Your task to perform on an android device: install app "McDonald's" Image 0: 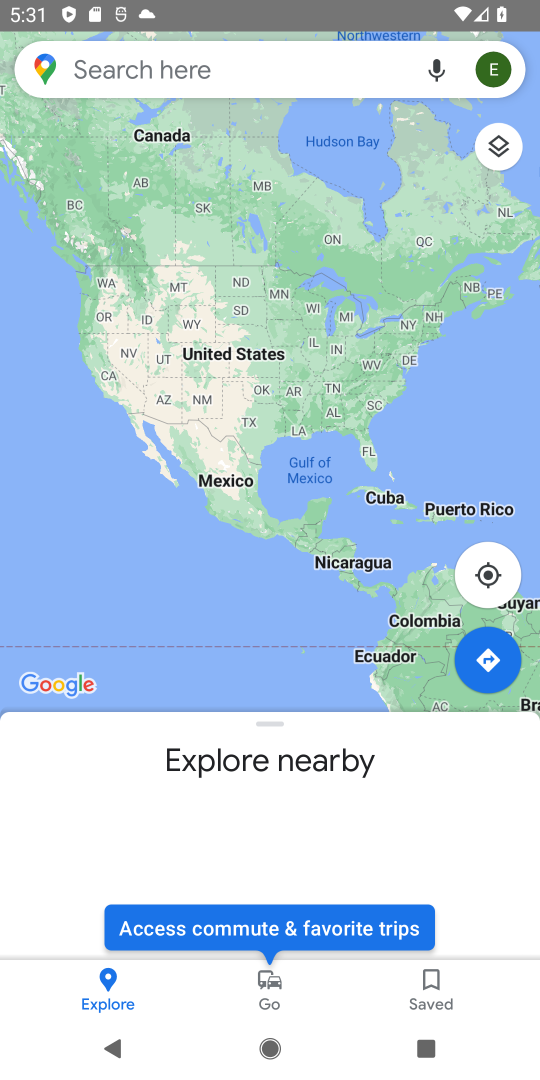
Step 0: press home button
Your task to perform on an android device: install app "McDonald's" Image 1: 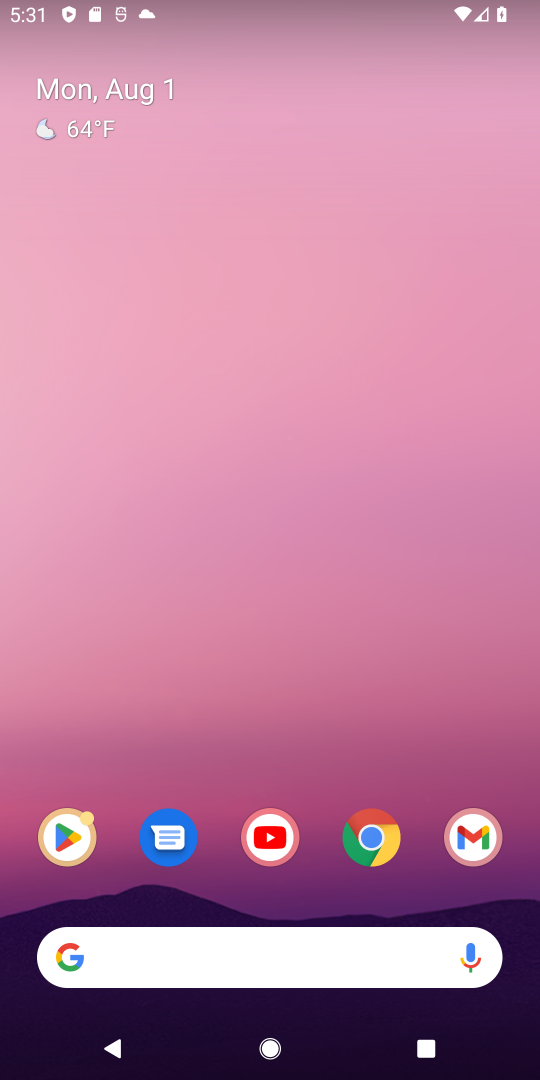
Step 1: click (43, 853)
Your task to perform on an android device: install app "McDonald's" Image 2: 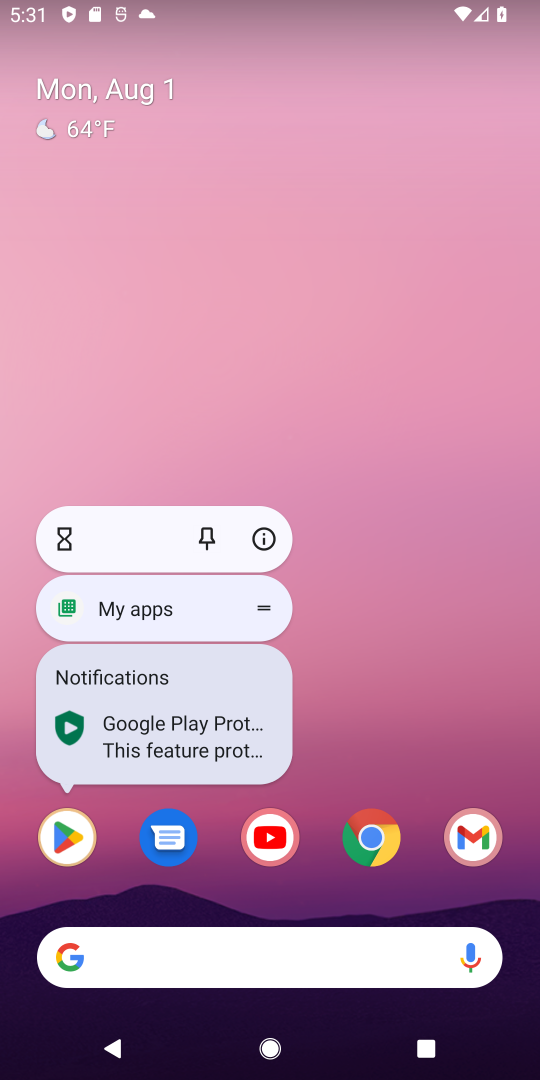
Step 2: click (55, 846)
Your task to perform on an android device: install app "McDonald's" Image 3: 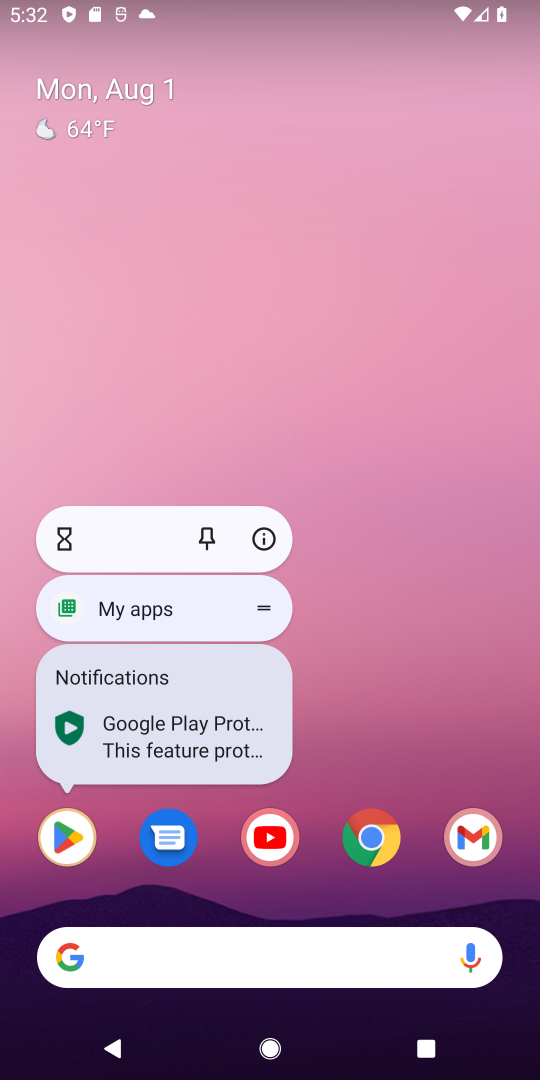
Step 3: click (70, 834)
Your task to perform on an android device: install app "McDonald's" Image 4: 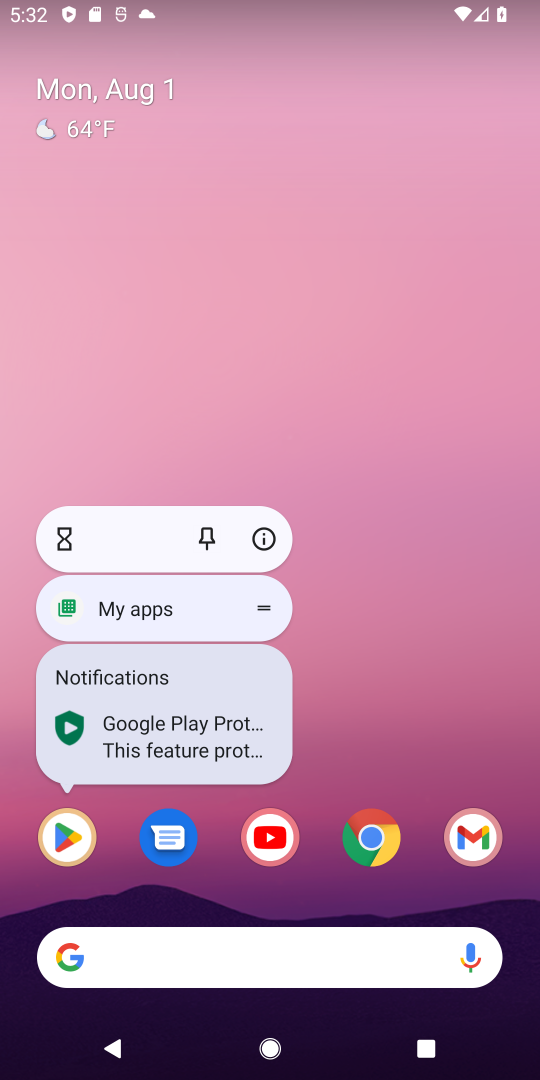
Step 4: click (70, 834)
Your task to perform on an android device: install app "McDonald's" Image 5: 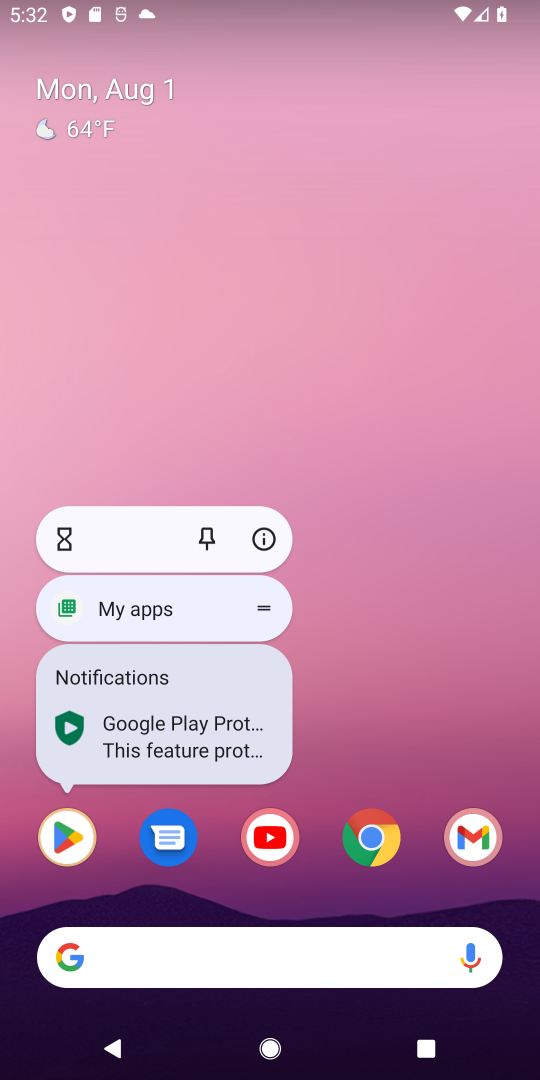
Step 5: click (55, 834)
Your task to perform on an android device: install app "McDonald's" Image 6: 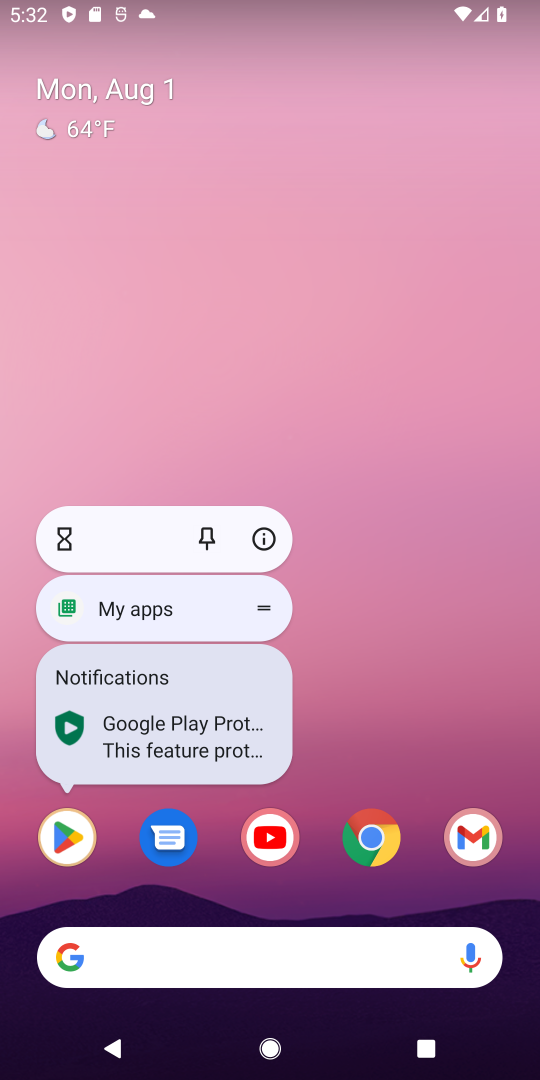
Step 6: click (55, 834)
Your task to perform on an android device: install app "McDonald's" Image 7: 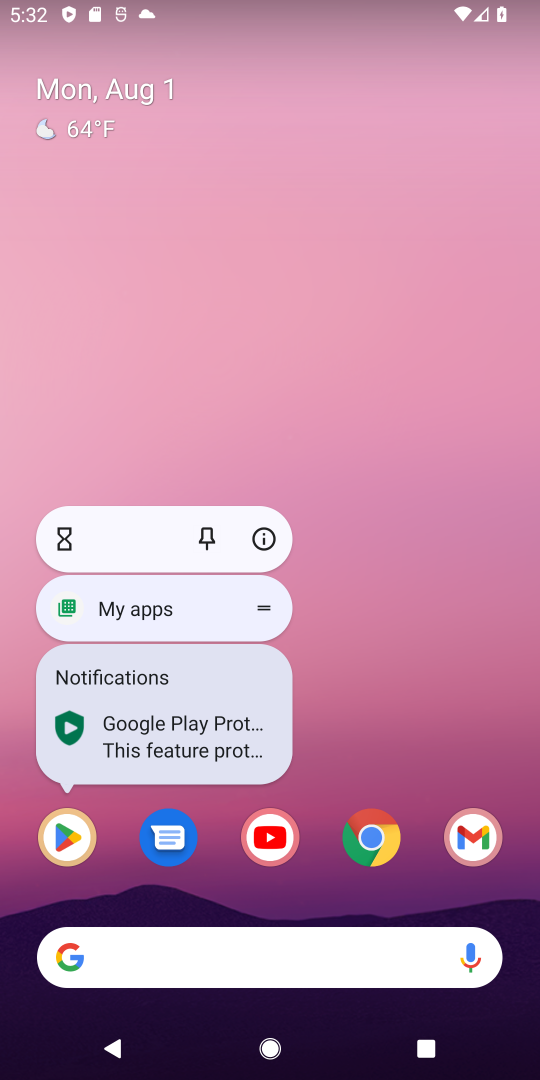
Step 7: click (74, 836)
Your task to perform on an android device: install app "McDonald's" Image 8: 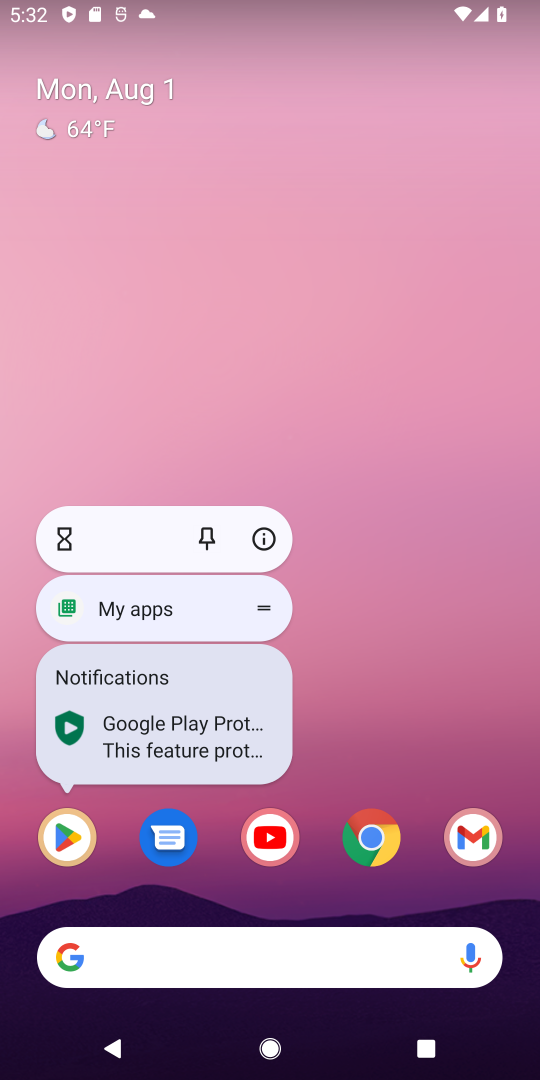
Step 8: click (74, 836)
Your task to perform on an android device: install app "McDonald's" Image 9: 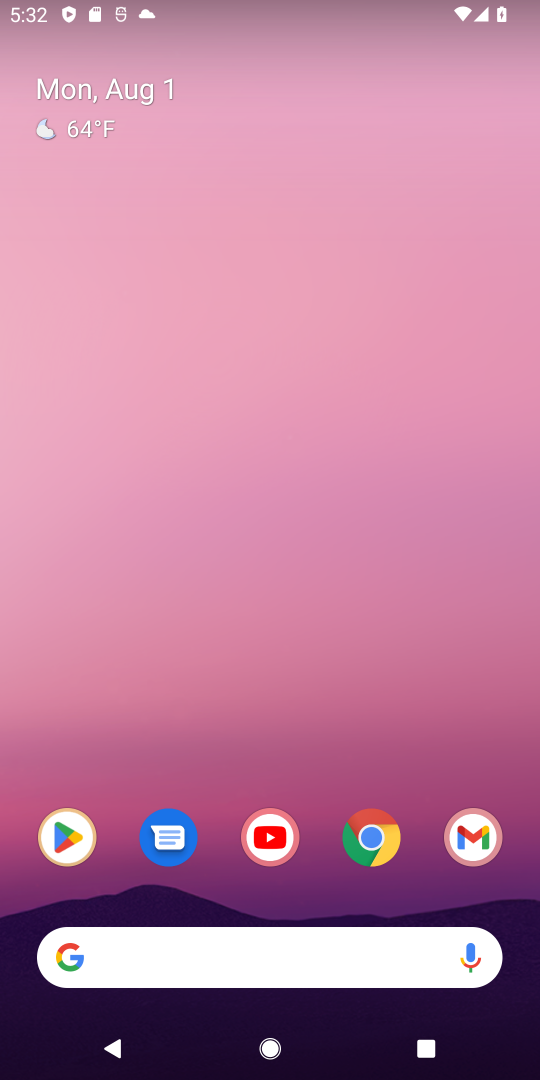
Step 9: click (74, 836)
Your task to perform on an android device: install app "McDonald's" Image 10: 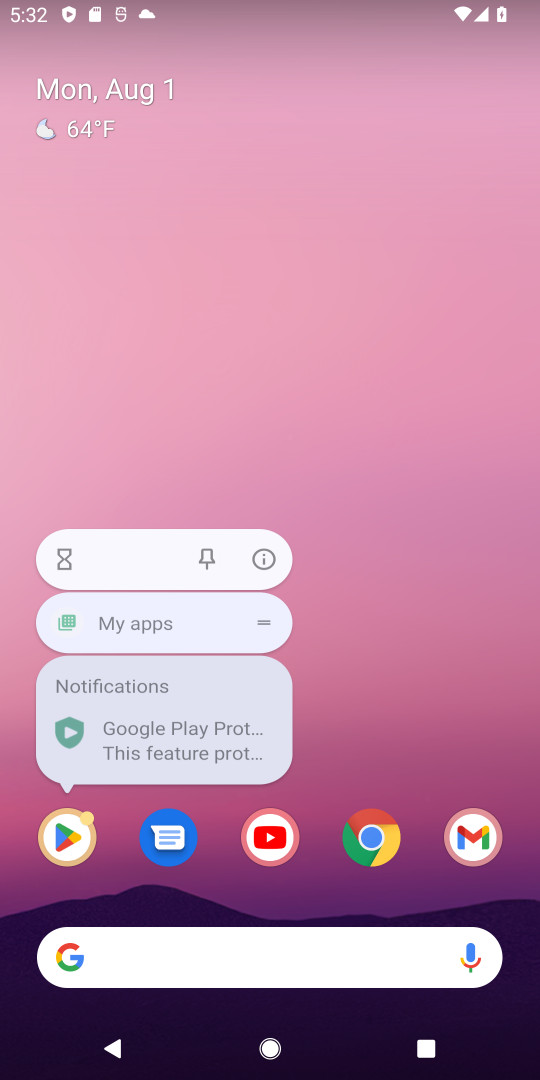
Step 10: click (74, 836)
Your task to perform on an android device: install app "McDonald's" Image 11: 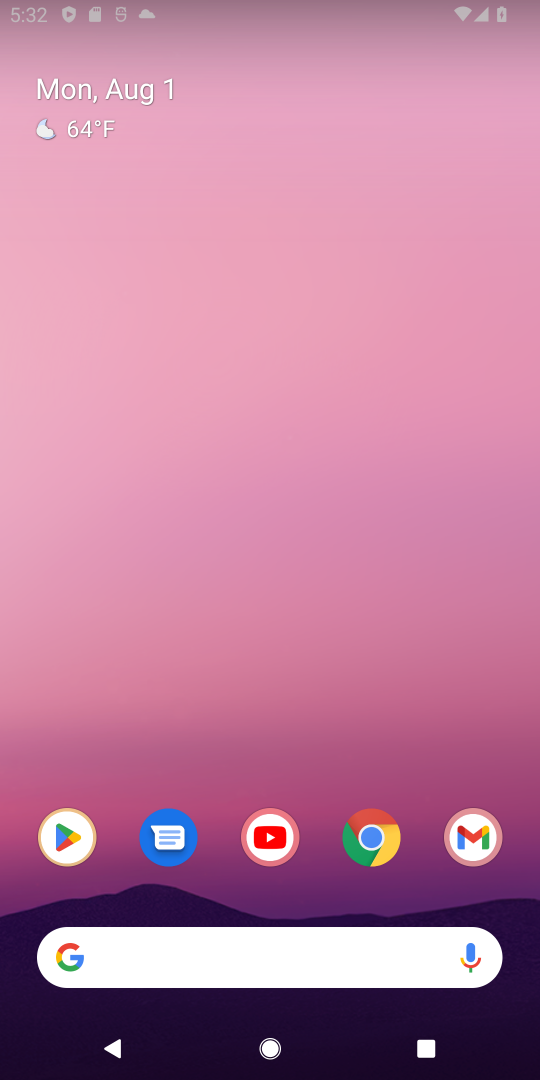
Step 11: click (74, 836)
Your task to perform on an android device: install app "McDonald's" Image 12: 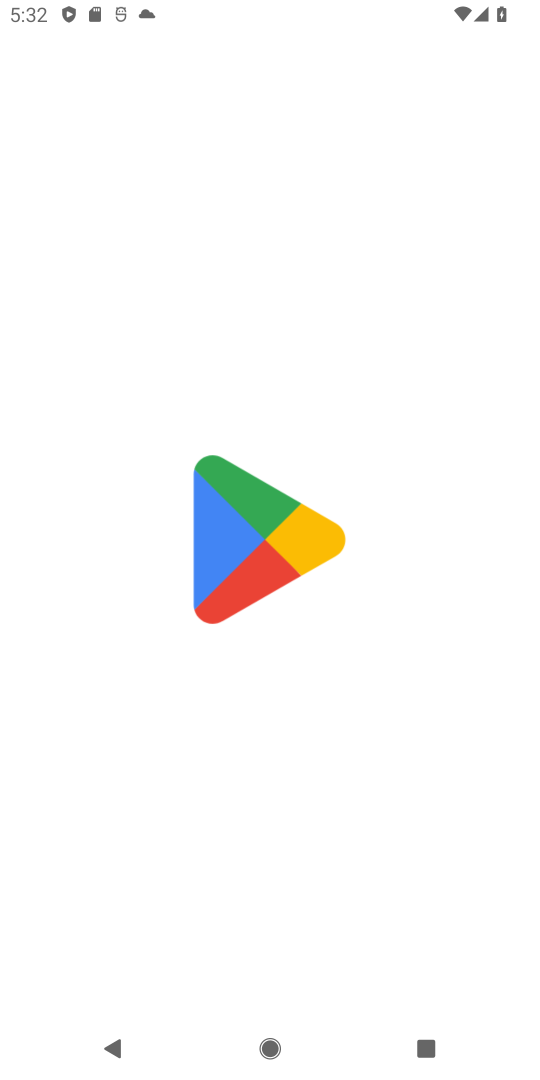
Step 12: click (74, 836)
Your task to perform on an android device: install app "McDonald's" Image 13: 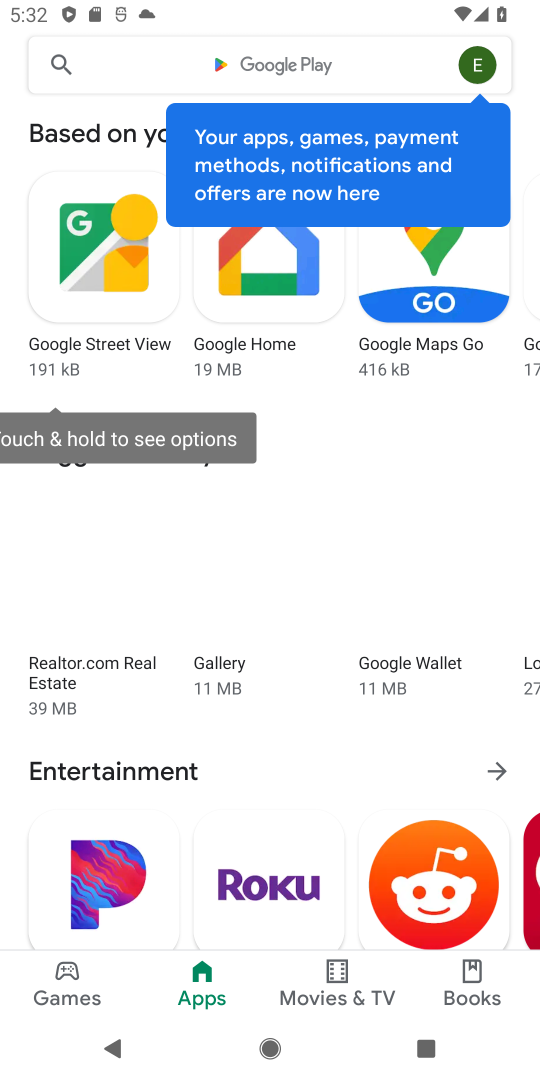
Step 13: click (320, 70)
Your task to perform on an android device: install app "McDonald's" Image 14: 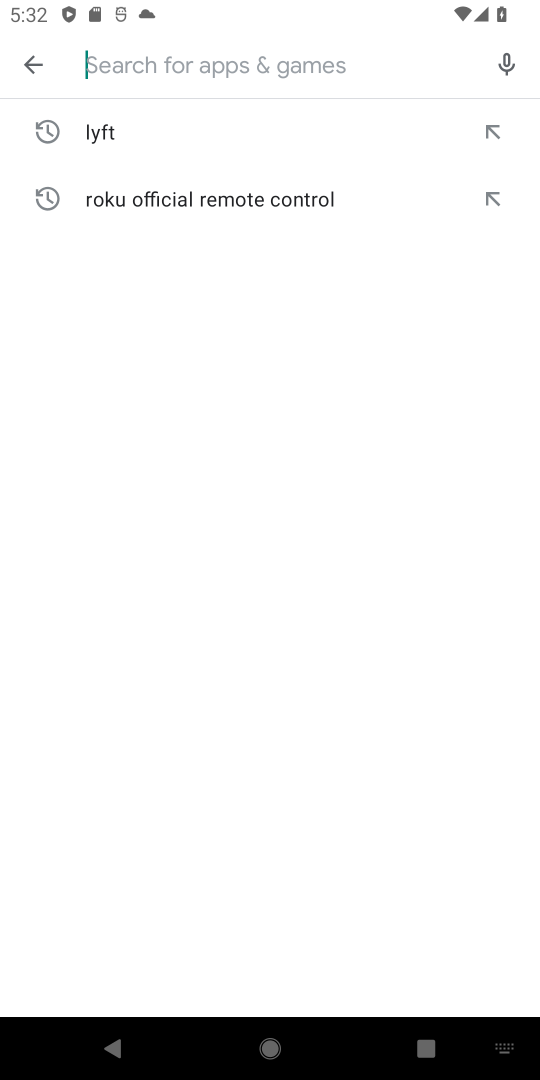
Step 14: type "McDonald's""
Your task to perform on an android device: install app "McDonald's" Image 15: 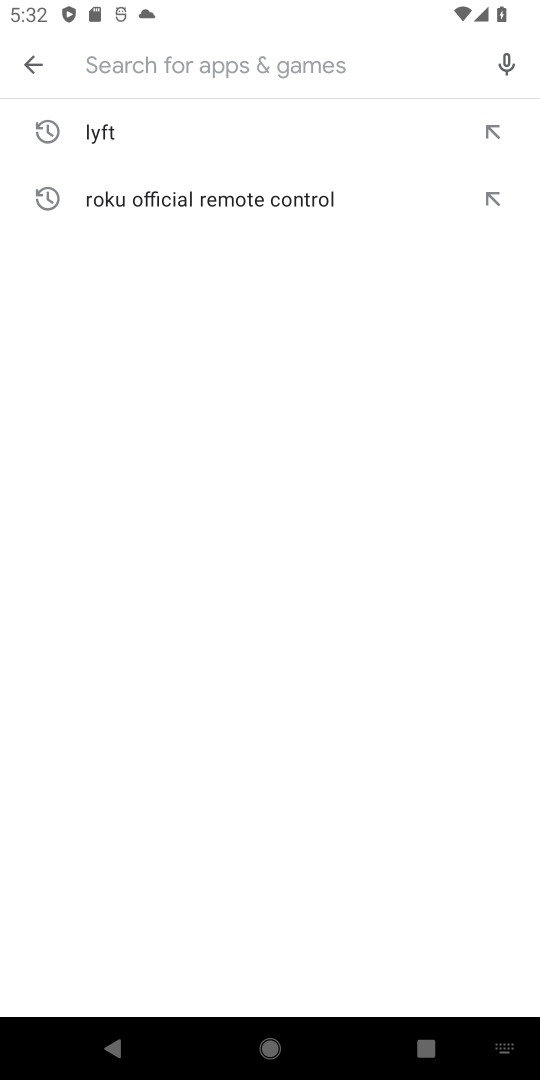
Step 15: type ""
Your task to perform on an android device: install app "McDonald's" Image 16: 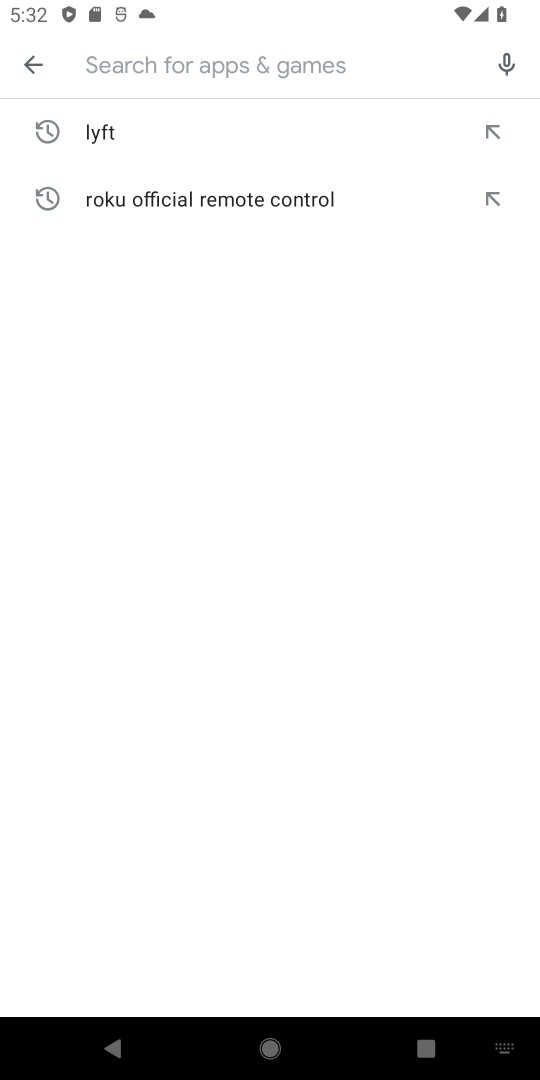
Step 16: type "McDonald's""
Your task to perform on an android device: install app "McDonald's" Image 17: 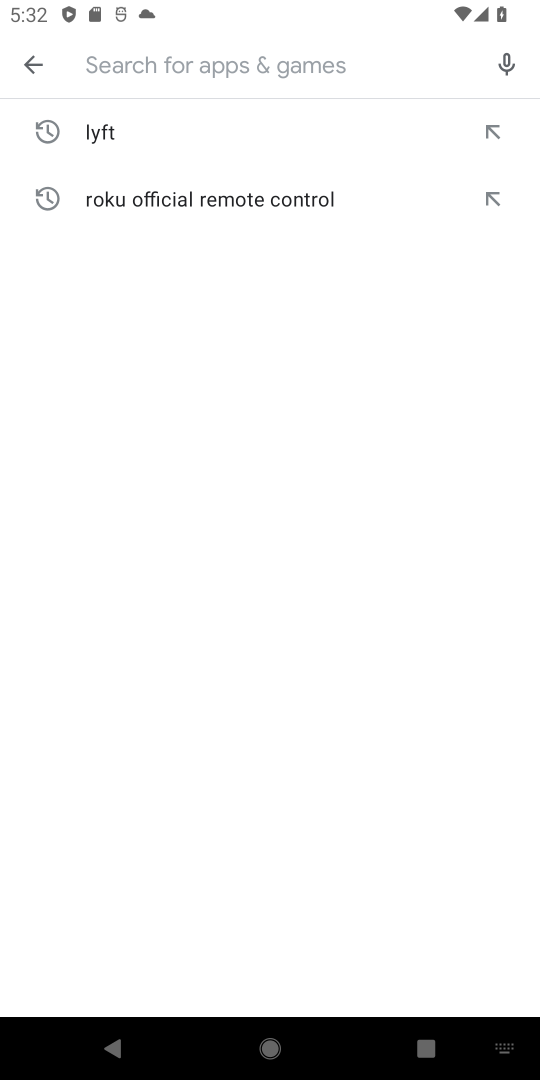
Step 17: press enter
Your task to perform on an android device: install app "McDonald's" Image 18: 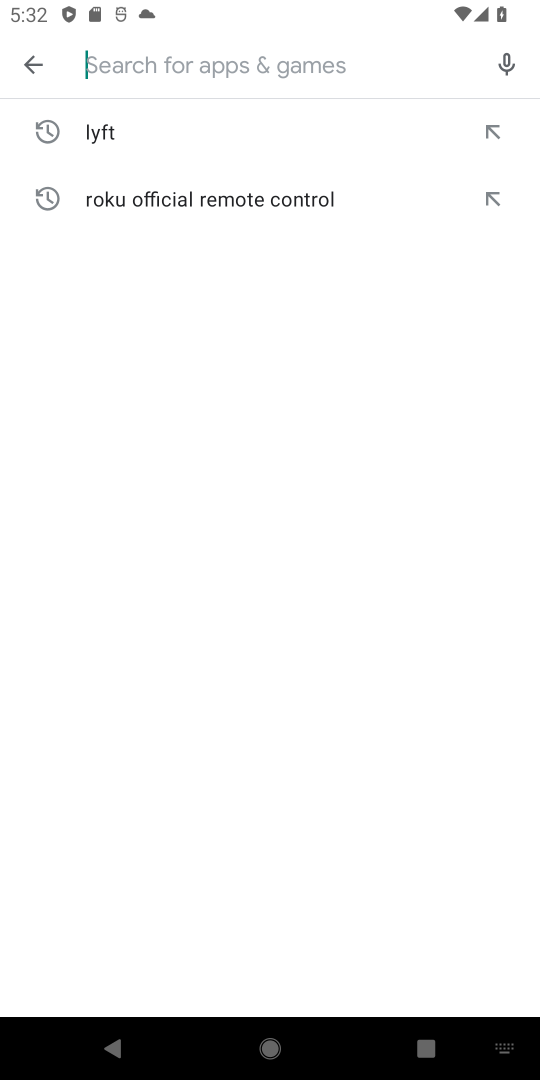
Step 18: type "McDonald's""
Your task to perform on an android device: install app "McDonald's" Image 19: 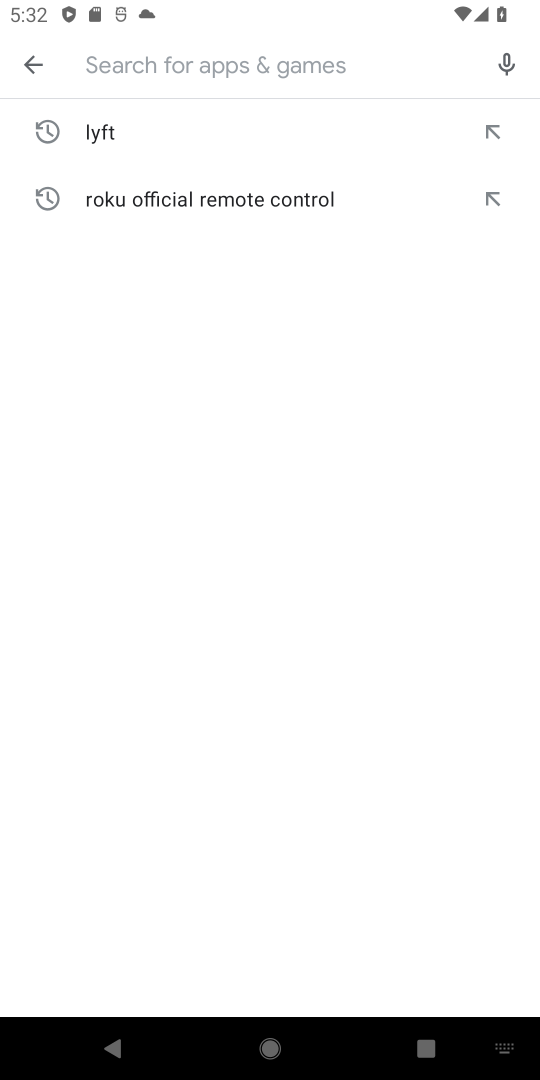
Step 19: type "mcdonald"
Your task to perform on an android device: install app "McDonald's" Image 20: 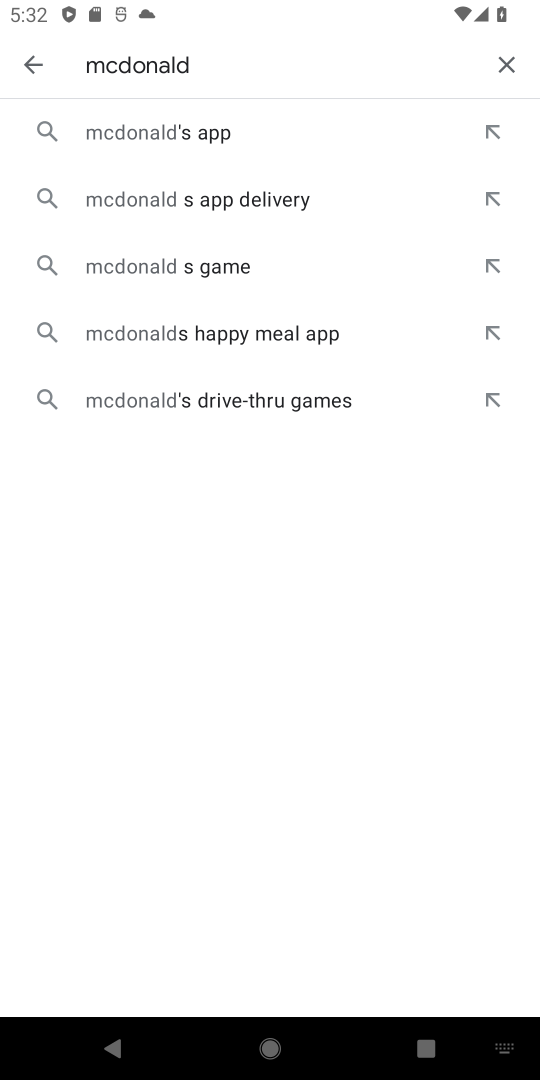
Step 20: click (339, 135)
Your task to perform on an android device: install app "McDonald's" Image 21: 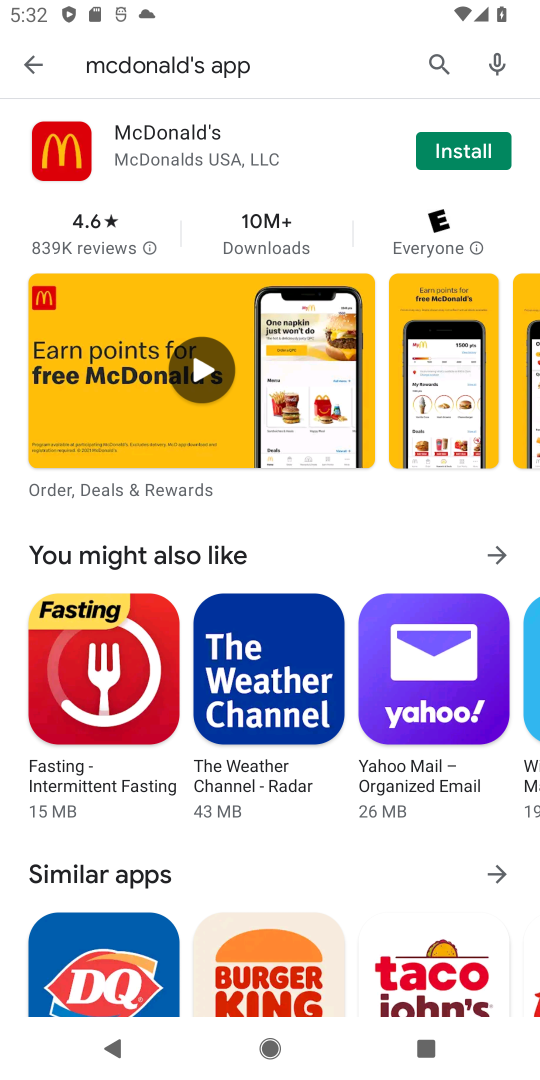
Step 21: click (438, 158)
Your task to perform on an android device: install app "McDonald's" Image 22: 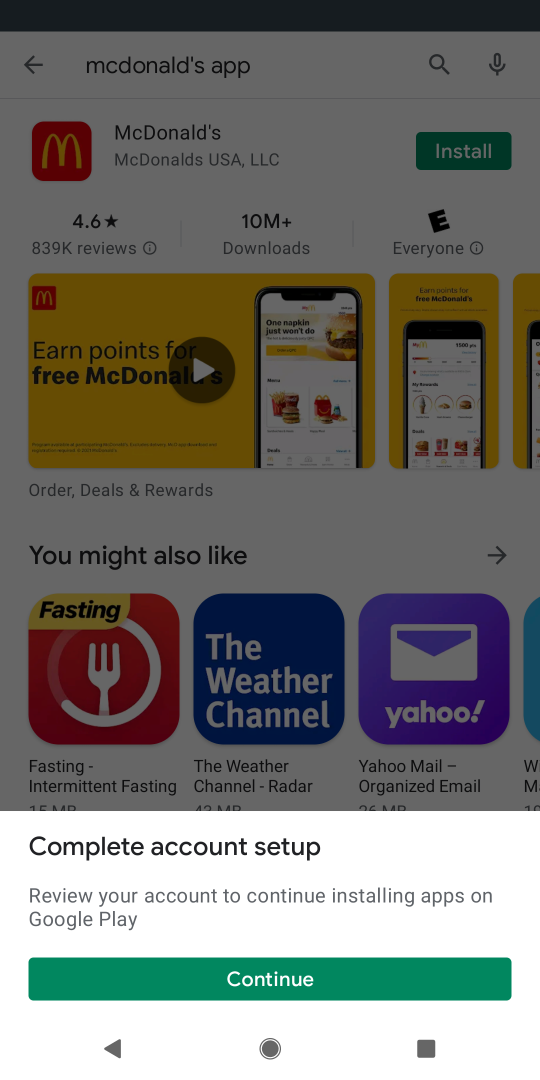
Step 22: click (308, 983)
Your task to perform on an android device: install app "McDonald's" Image 23: 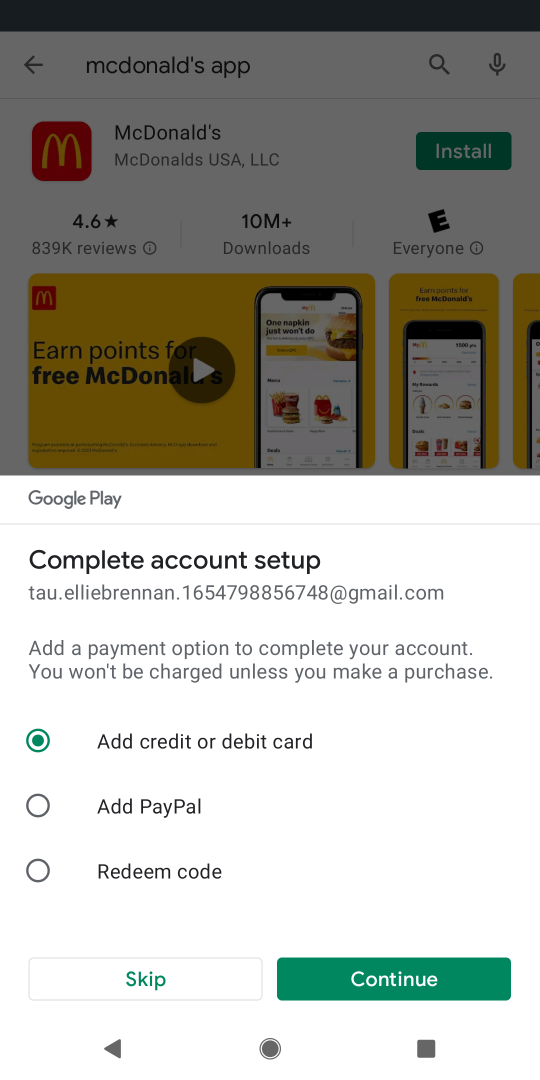
Step 23: click (162, 992)
Your task to perform on an android device: install app "McDonald's" Image 24: 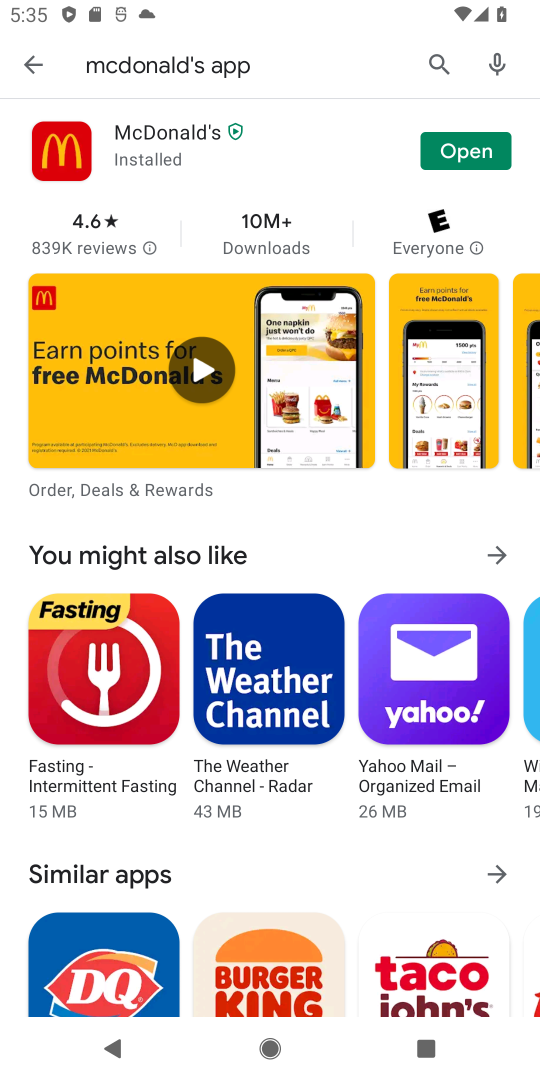
Step 24: task complete